Your task to perform on an android device: open device folders in google photos Image 0: 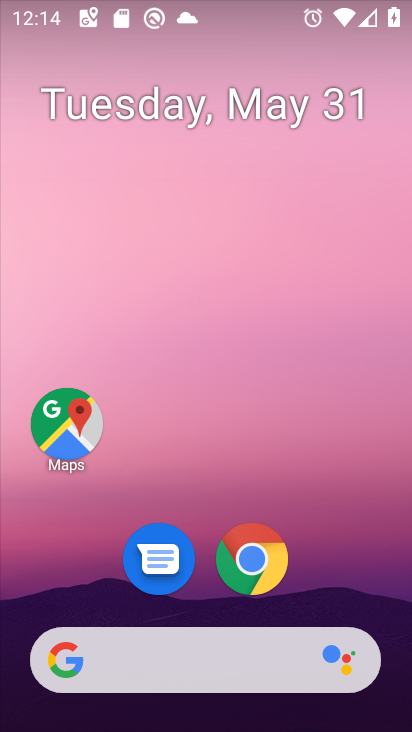
Step 0: drag from (387, 599) to (258, 148)
Your task to perform on an android device: open device folders in google photos Image 1: 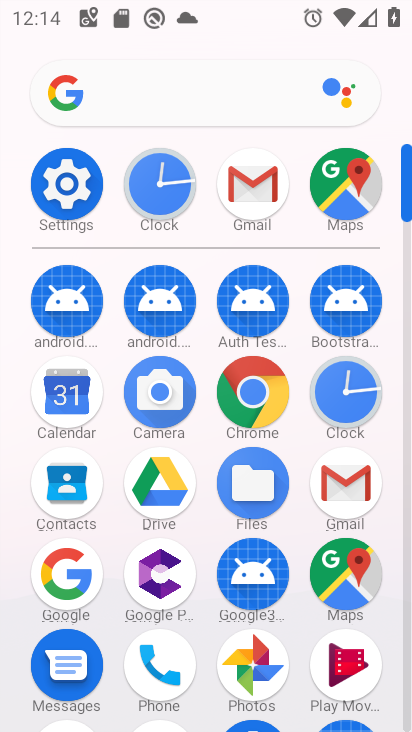
Step 1: click (263, 675)
Your task to perform on an android device: open device folders in google photos Image 2: 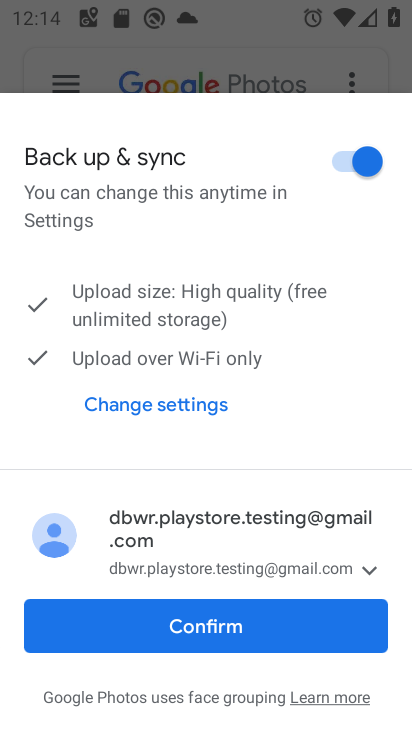
Step 2: click (242, 618)
Your task to perform on an android device: open device folders in google photos Image 3: 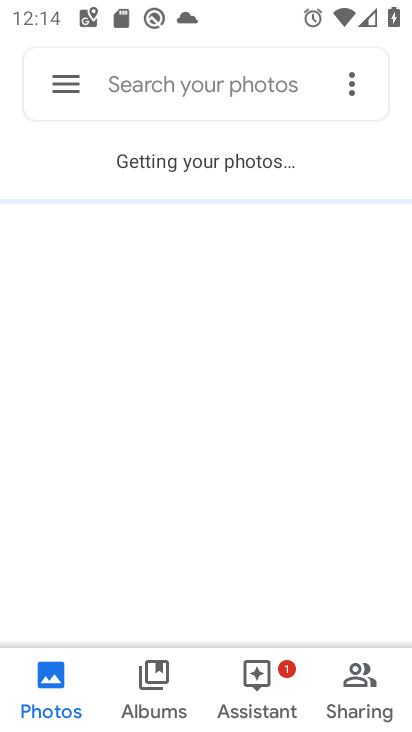
Step 3: click (62, 96)
Your task to perform on an android device: open device folders in google photos Image 4: 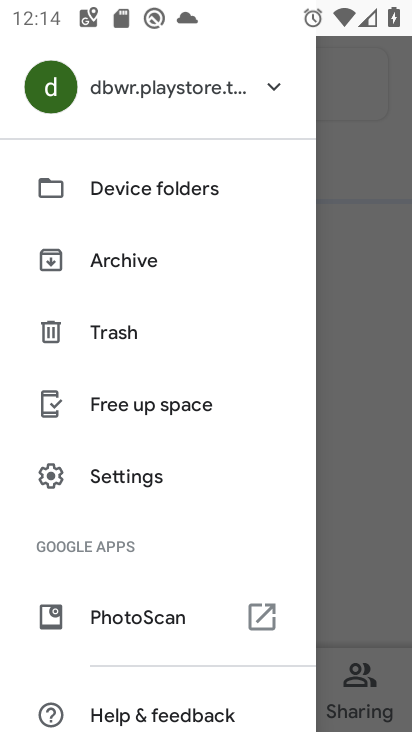
Step 4: click (139, 194)
Your task to perform on an android device: open device folders in google photos Image 5: 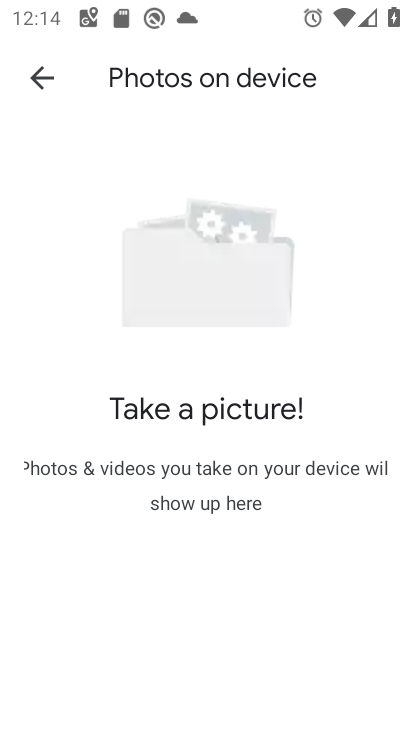
Step 5: task complete